Your task to perform on an android device: What's the weather going to be this weekend? Image 0: 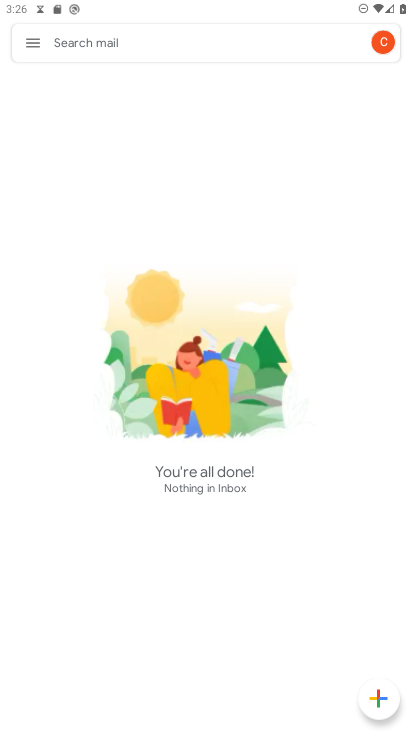
Step 0: press home button
Your task to perform on an android device: What's the weather going to be this weekend? Image 1: 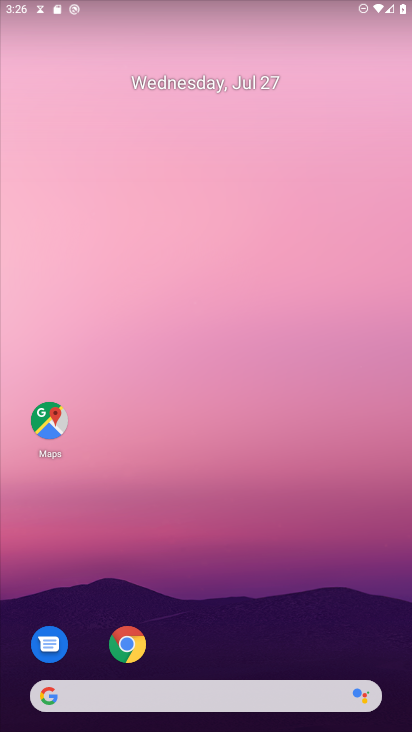
Step 1: click (154, 691)
Your task to perform on an android device: What's the weather going to be this weekend? Image 2: 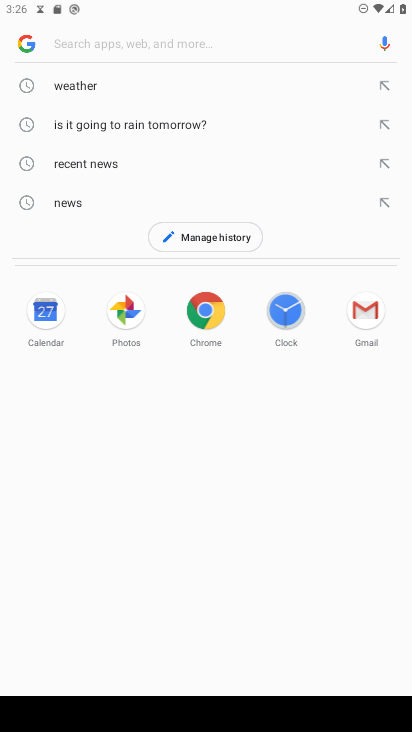
Step 2: click (112, 90)
Your task to perform on an android device: What's the weather going to be this weekend? Image 3: 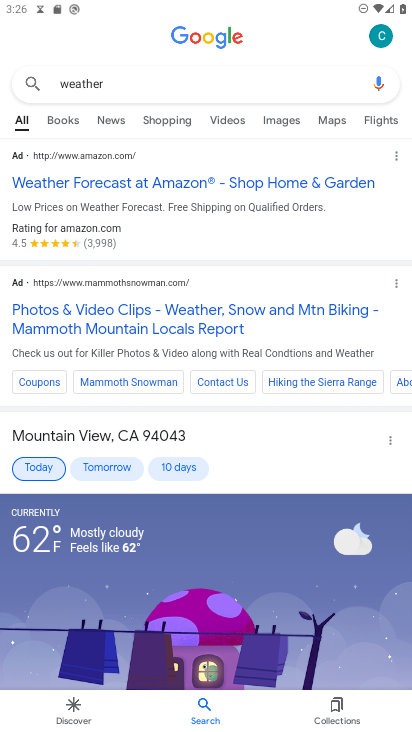
Step 3: click (184, 465)
Your task to perform on an android device: What's the weather going to be this weekend? Image 4: 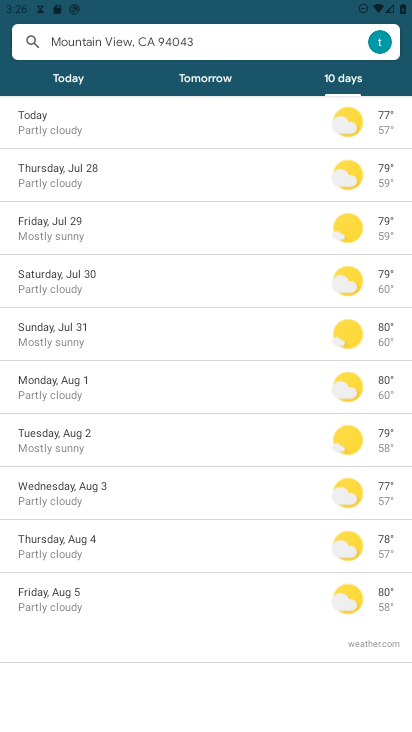
Step 4: task complete